Your task to perform on an android device: toggle pop-ups in chrome Image 0: 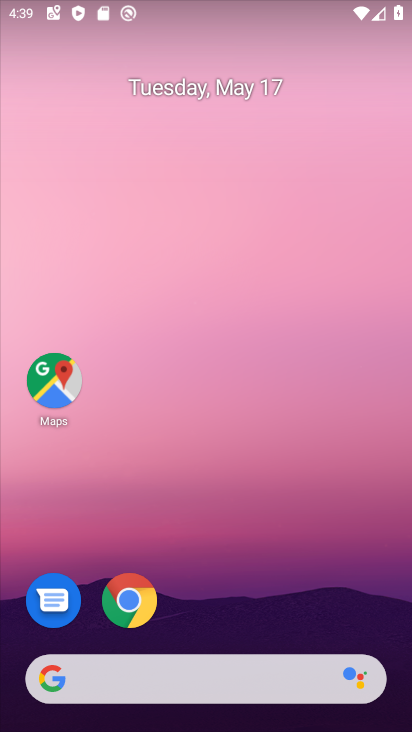
Step 0: click (151, 602)
Your task to perform on an android device: toggle pop-ups in chrome Image 1: 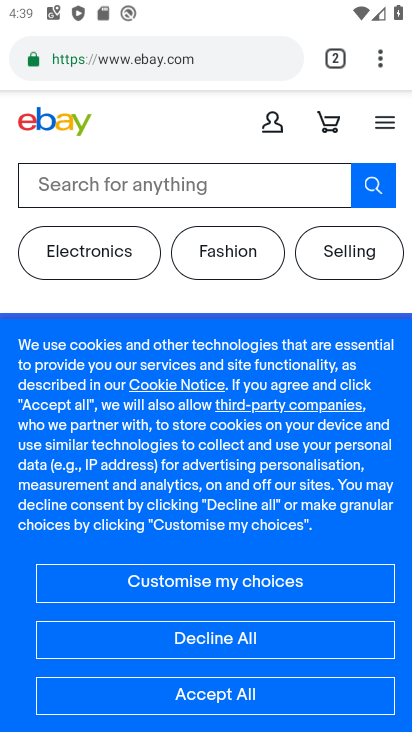
Step 1: click (383, 60)
Your task to perform on an android device: toggle pop-ups in chrome Image 2: 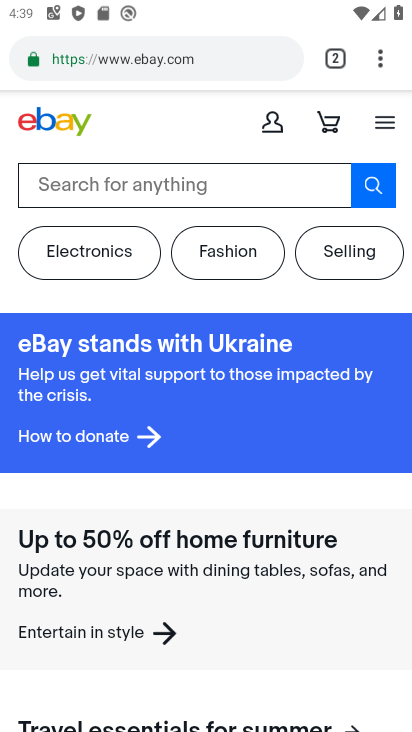
Step 2: click (381, 56)
Your task to perform on an android device: toggle pop-ups in chrome Image 3: 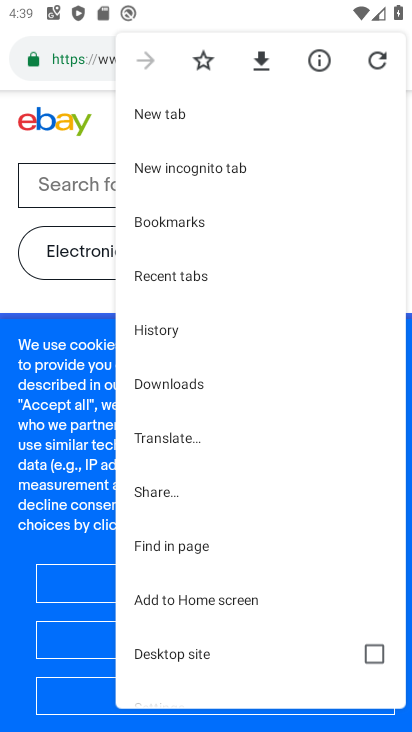
Step 3: drag from (176, 616) to (222, 378)
Your task to perform on an android device: toggle pop-ups in chrome Image 4: 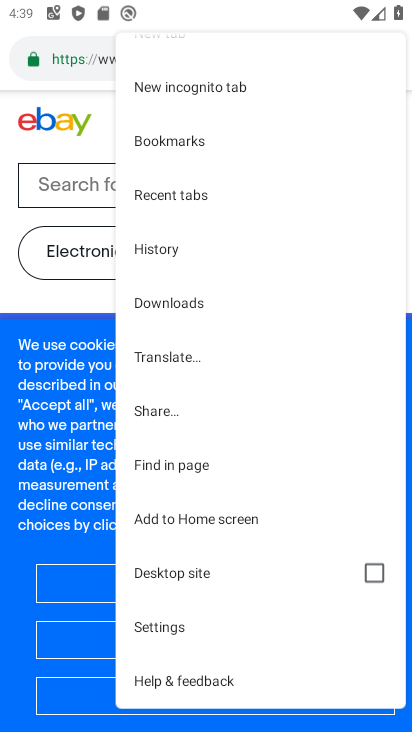
Step 4: click (167, 624)
Your task to perform on an android device: toggle pop-ups in chrome Image 5: 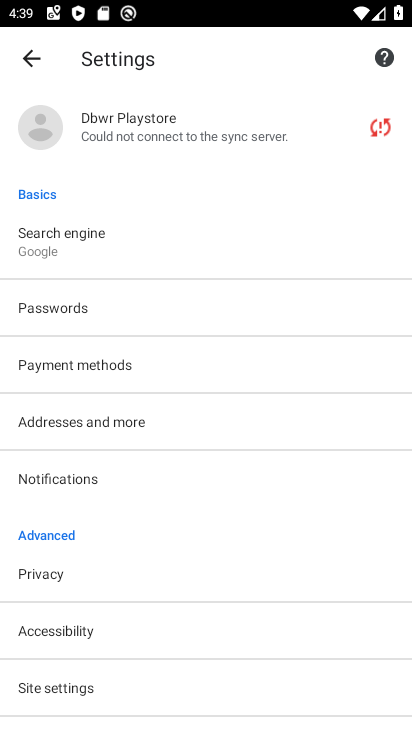
Step 5: drag from (118, 520) to (154, 294)
Your task to perform on an android device: toggle pop-ups in chrome Image 6: 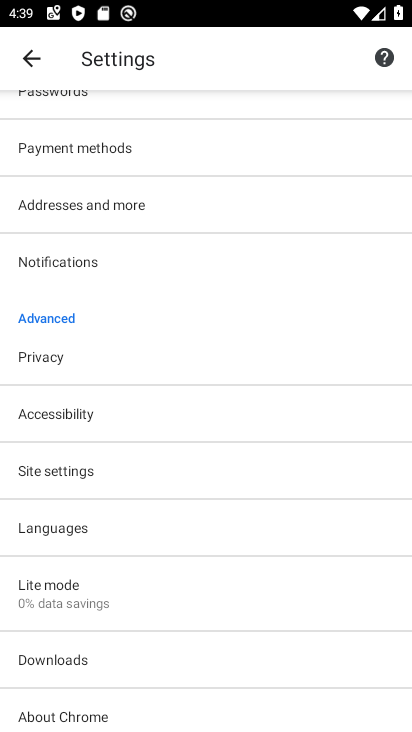
Step 6: click (82, 469)
Your task to perform on an android device: toggle pop-ups in chrome Image 7: 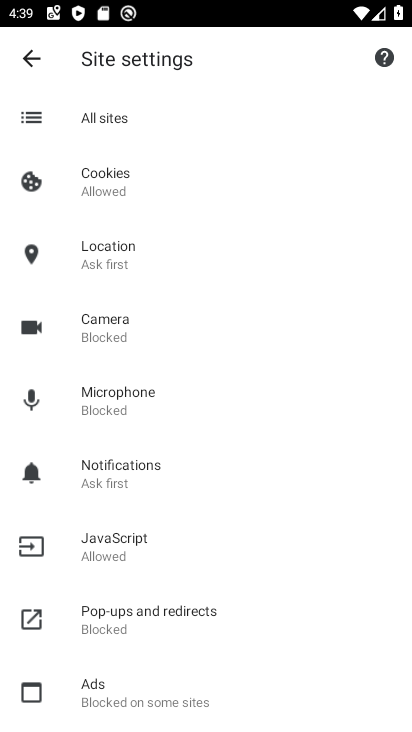
Step 7: click (113, 616)
Your task to perform on an android device: toggle pop-ups in chrome Image 8: 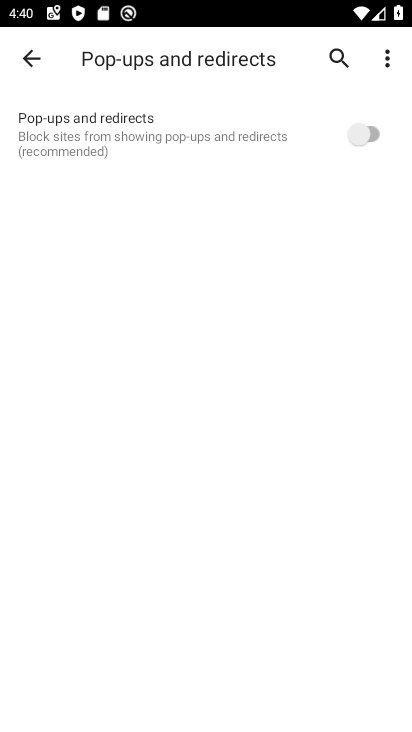
Step 8: click (380, 133)
Your task to perform on an android device: toggle pop-ups in chrome Image 9: 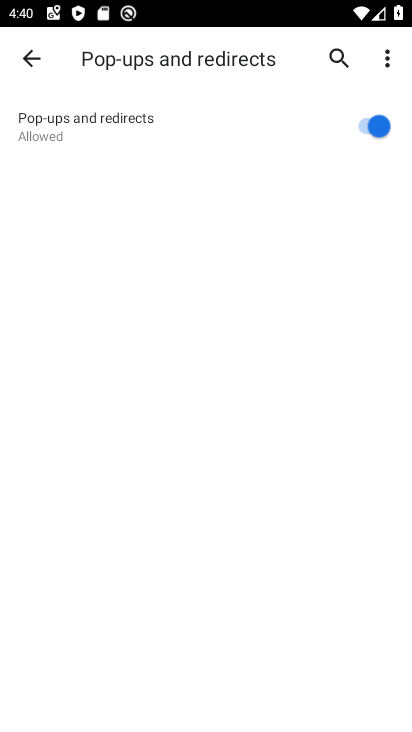
Step 9: task complete